Your task to perform on an android device: turn on the 12-hour format for clock Image 0: 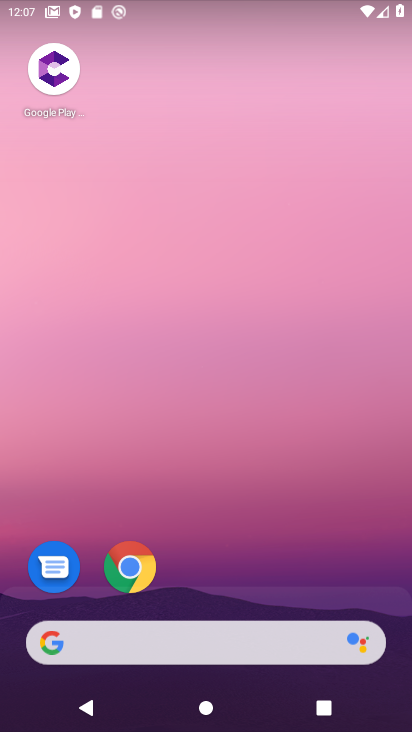
Step 0: drag from (248, 526) to (242, 22)
Your task to perform on an android device: turn on the 12-hour format for clock Image 1: 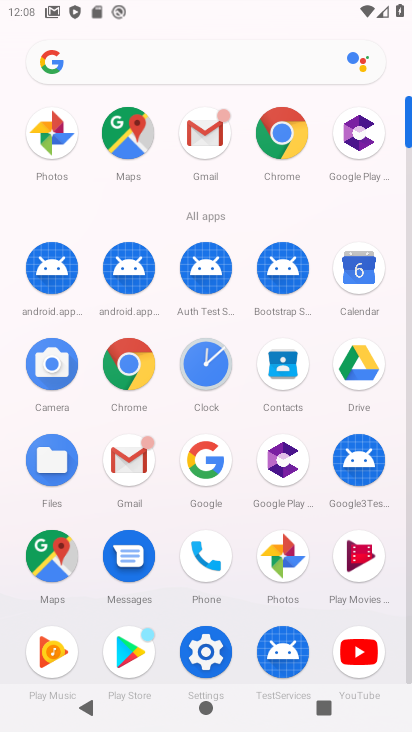
Step 1: click (205, 365)
Your task to perform on an android device: turn on the 12-hour format for clock Image 2: 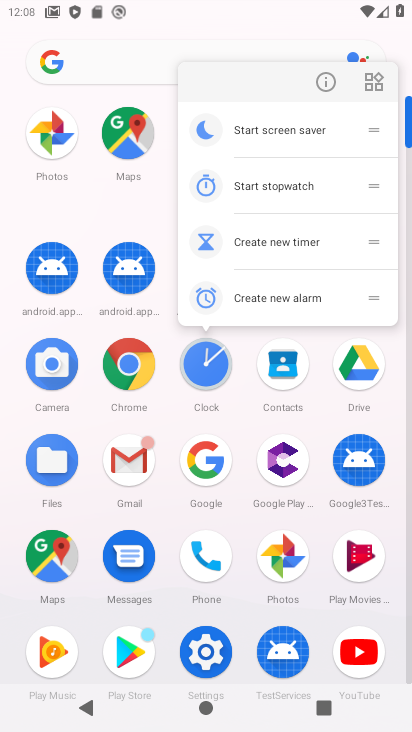
Step 2: click (203, 363)
Your task to perform on an android device: turn on the 12-hour format for clock Image 3: 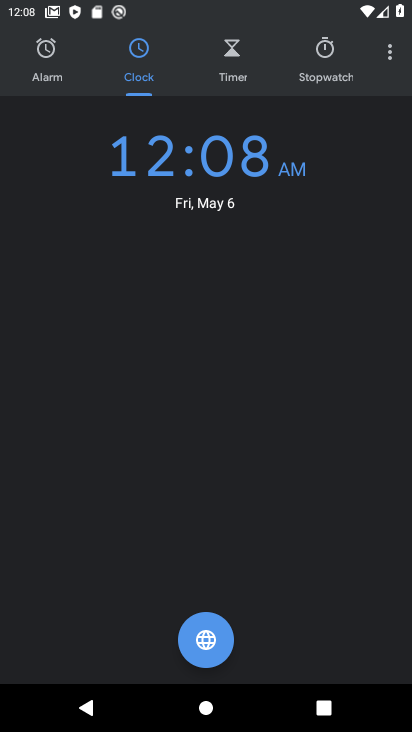
Step 3: click (390, 50)
Your task to perform on an android device: turn on the 12-hour format for clock Image 4: 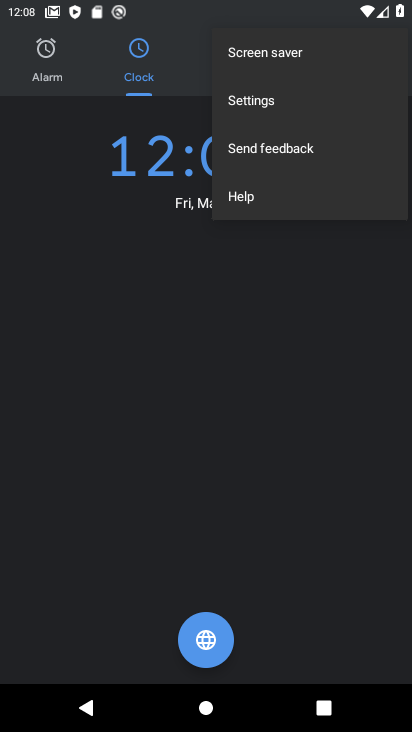
Step 4: click (271, 104)
Your task to perform on an android device: turn on the 12-hour format for clock Image 5: 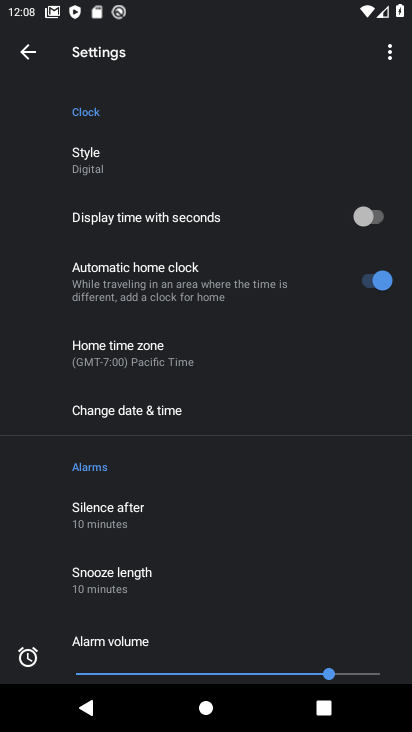
Step 5: click (175, 407)
Your task to perform on an android device: turn on the 12-hour format for clock Image 6: 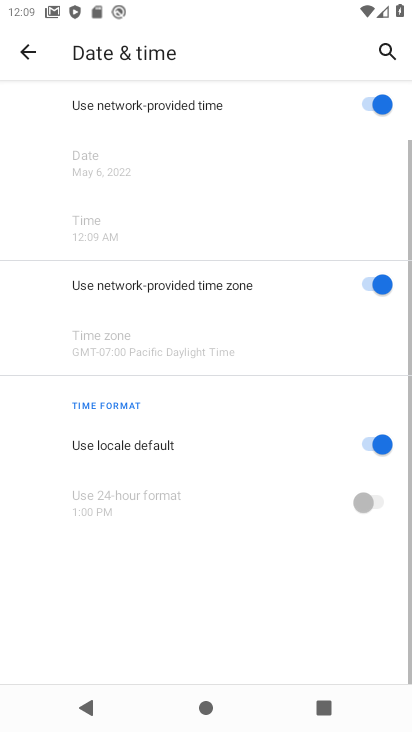
Step 6: task complete